Your task to perform on an android device: Open calendar and show me the second week of next month Image 0: 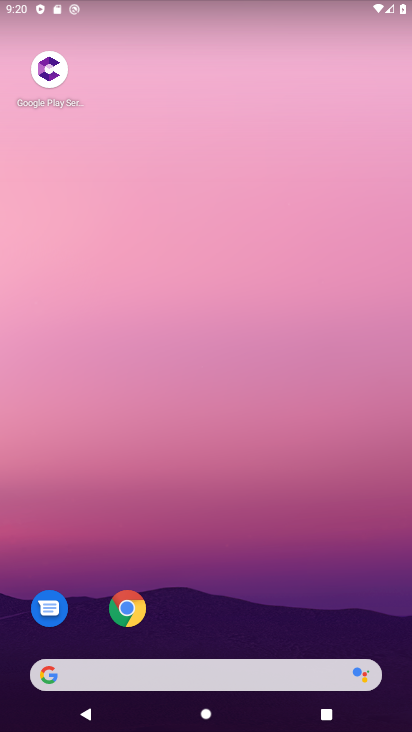
Step 0: task complete